Your task to perform on an android device: Open settings Image 0: 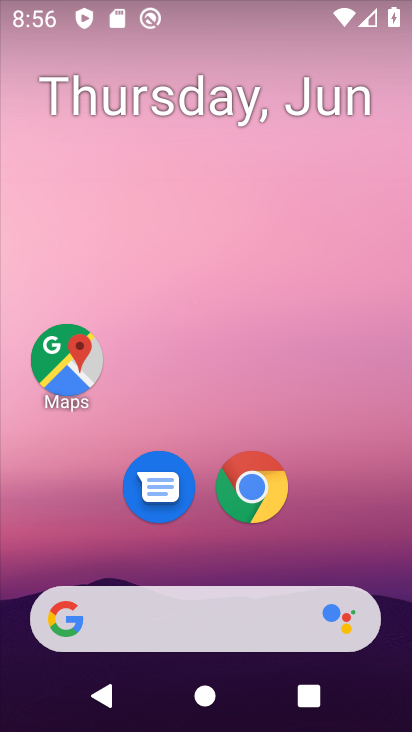
Step 0: drag from (235, 722) to (229, 0)
Your task to perform on an android device: Open settings Image 1: 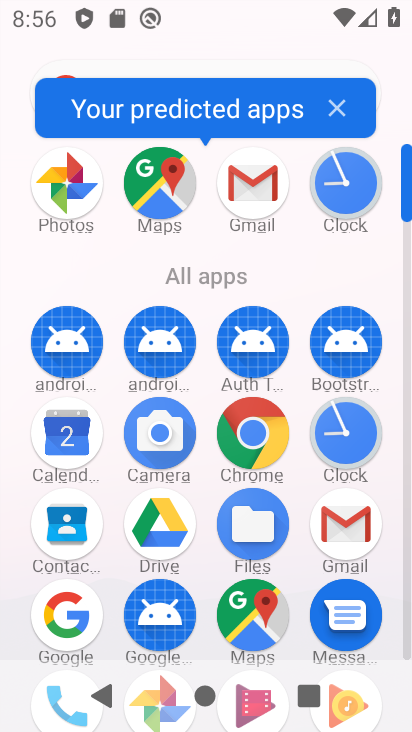
Step 1: drag from (294, 639) to (250, 269)
Your task to perform on an android device: Open settings Image 2: 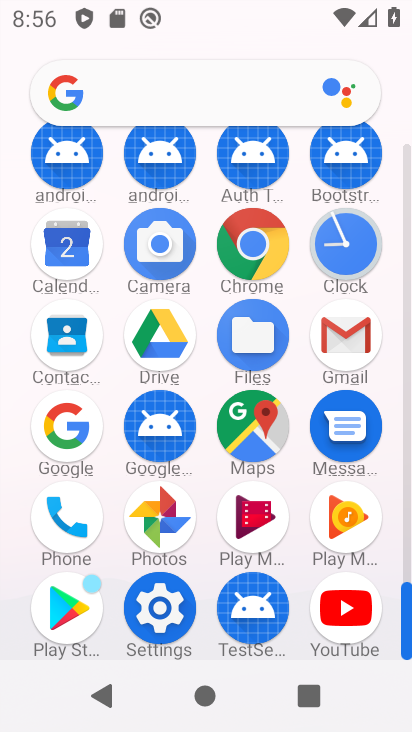
Step 2: click (172, 604)
Your task to perform on an android device: Open settings Image 3: 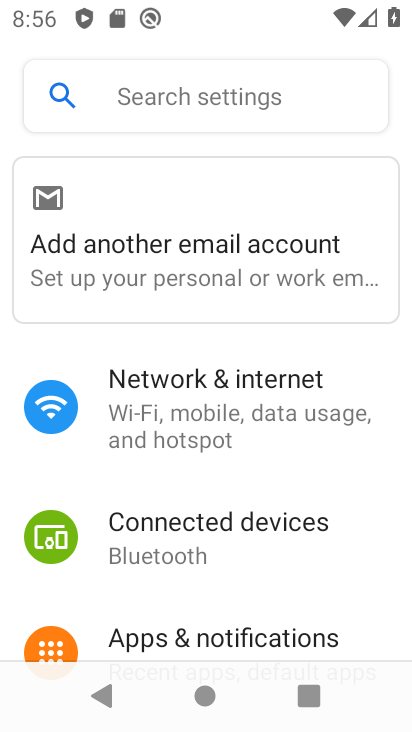
Step 3: task complete